Your task to perform on an android device: turn off translation in the chrome app Image 0: 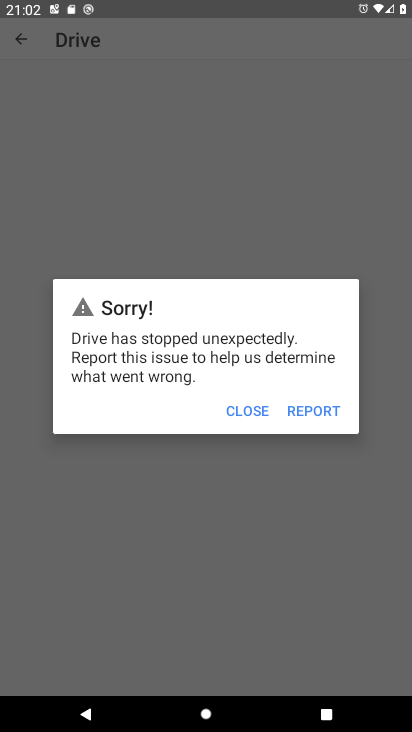
Step 0: press home button
Your task to perform on an android device: turn off translation in the chrome app Image 1: 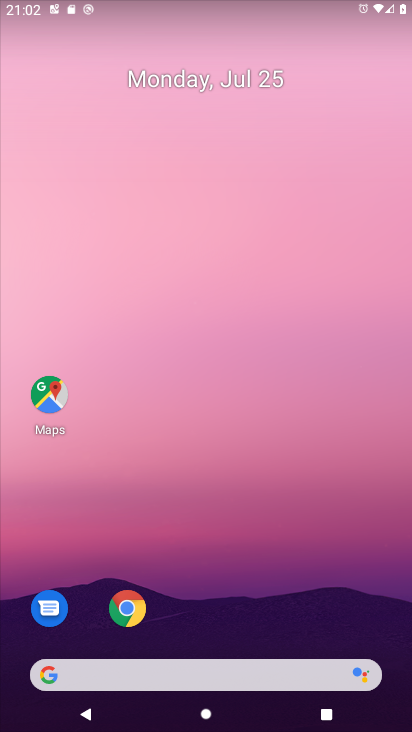
Step 1: click (131, 607)
Your task to perform on an android device: turn off translation in the chrome app Image 2: 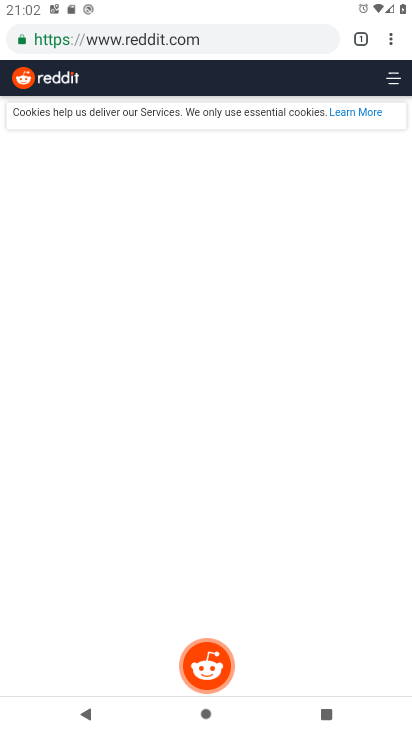
Step 2: click (390, 37)
Your task to perform on an android device: turn off translation in the chrome app Image 3: 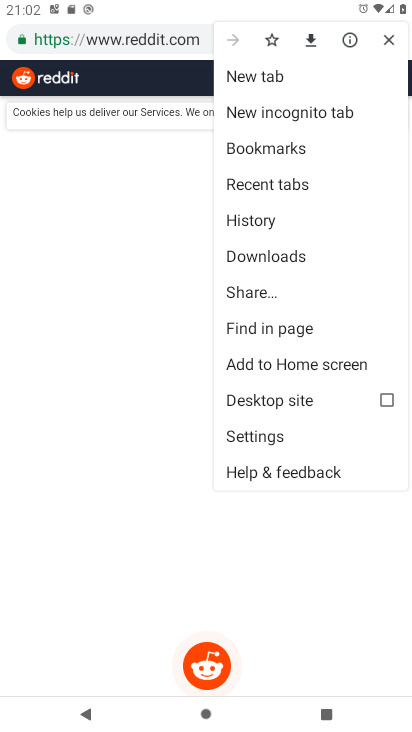
Step 3: click (266, 436)
Your task to perform on an android device: turn off translation in the chrome app Image 4: 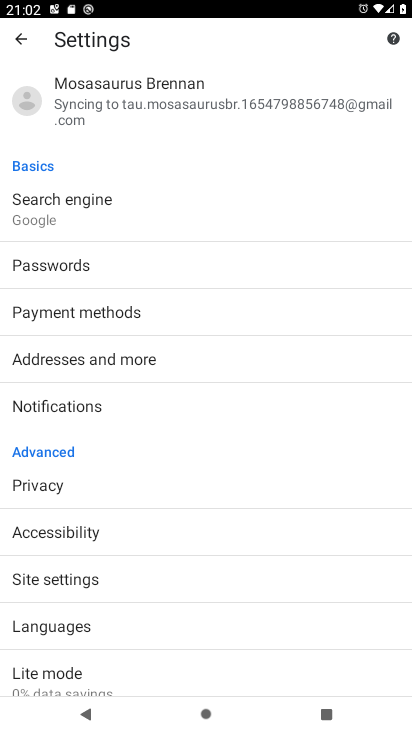
Step 4: click (129, 630)
Your task to perform on an android device: turn off translation in the chrome app Image 5: 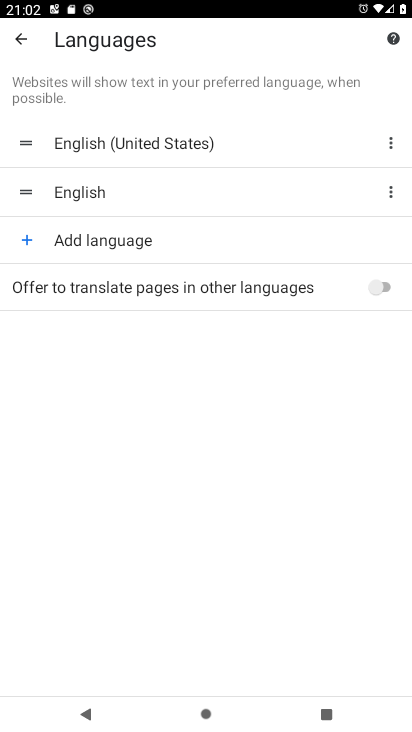
Step 5: task complete